Your task to perform on an android device: Search for Mexican restaurants on Maps Image 0: 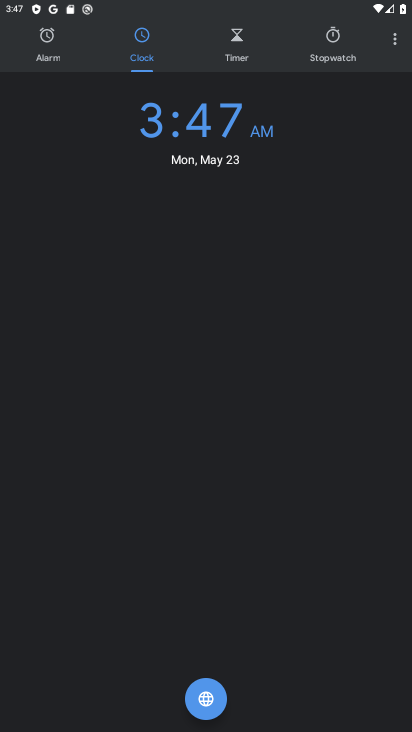
Step 0: press home button
Your task to perform on an android device: Search for Mexican restaurants on Maps Image 1: 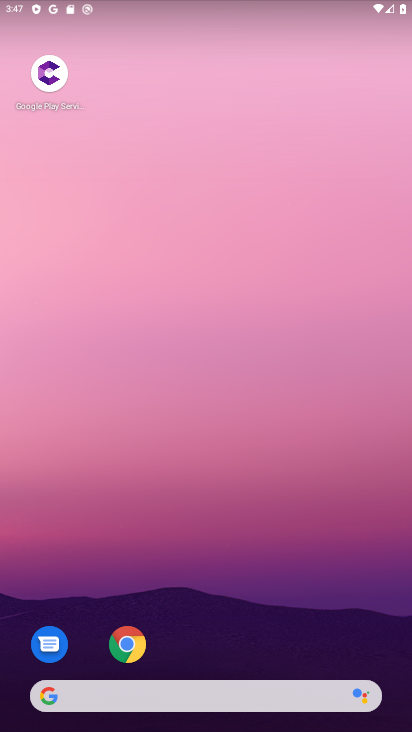
Step 1: drag from (264, 643) to (234, 114)
Your task to perform on an android device: Search for Mexican restaurants on Maps Image 2: 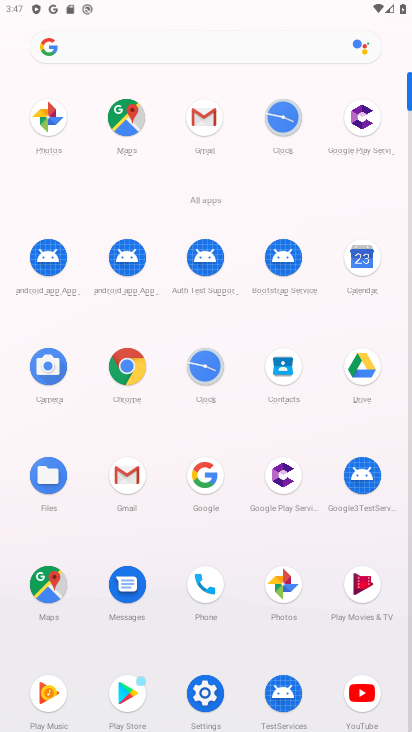
Step 2: click (114, 114)
Your task to perform on an android device: Search for Mexican restaurants on Maps Image 3: 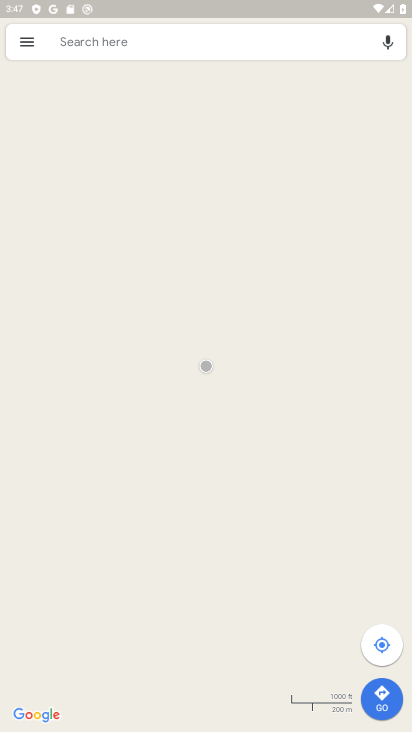
Step 3: click (181, 37)
Your task to perform on an android device: Search for Mexican restaurants on Maps Image 4: 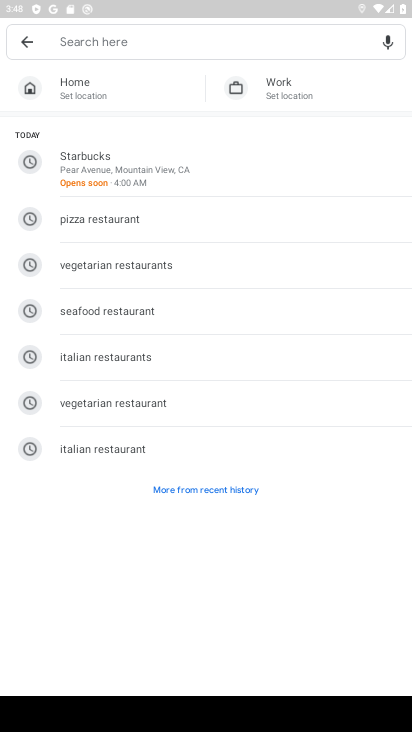
Step 4: type "mexican restaurants"
Your task to perform on an android device: Search for Mexican restaurants on Maps Image 5: 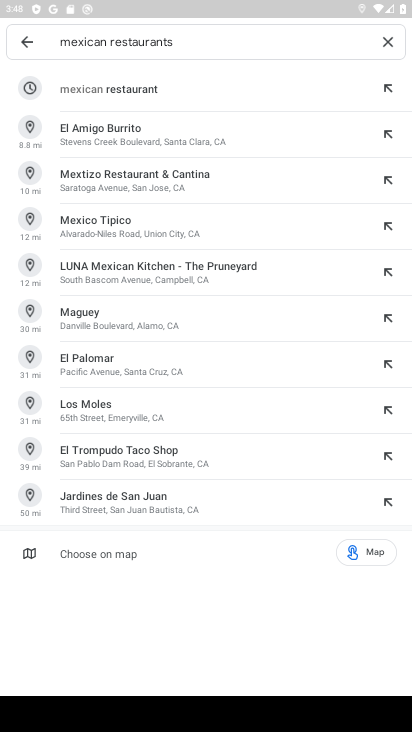
Step 5: click (171, 83)
Your task to perform on an android device: Search for Mexican restaurants on Maps Image 6: 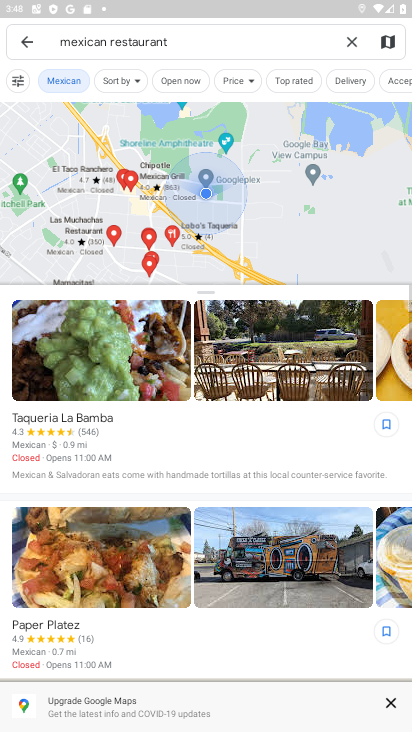
Step 6: task complete